Your task to perform on an android device: turn on the 24-hour format for clock Image 0: 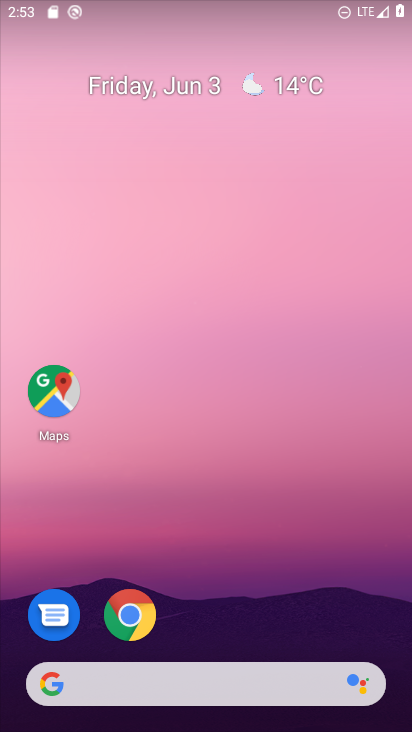
Step 0: drag from (215, 264) to (342, 399)
Your task to perform on an android device: turn on the 24-hour format for clock Image 1: 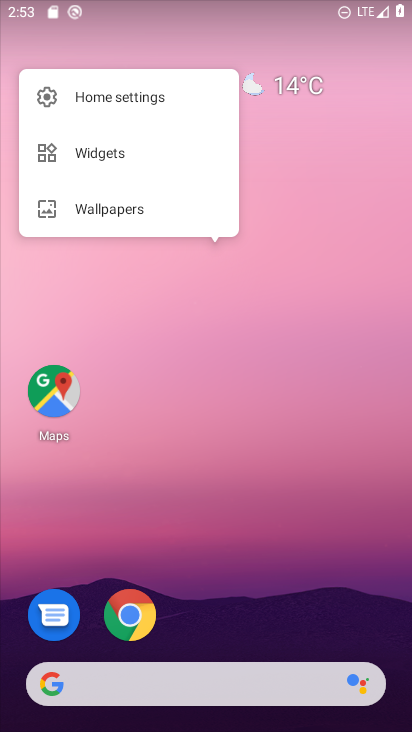
Step 1: drag from (202, 553) to (230, 9)
Your task to perform on an android device: turn on the 24-hour format for clock Image 2: 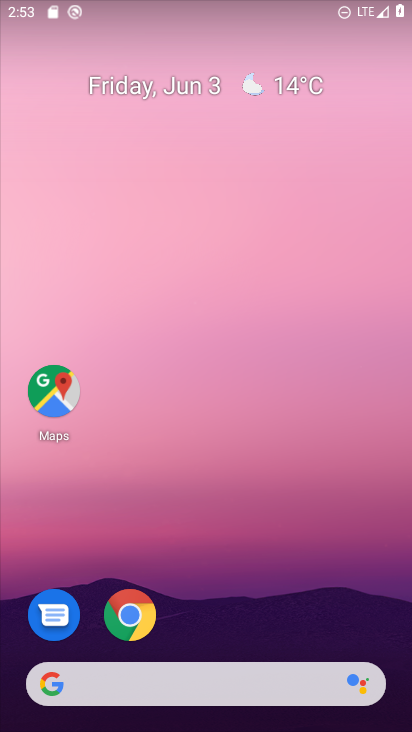
Step 2: drag from (195, 635) to (180, 122)
Your task to perform on an android device: turn on the 24-hour format for clock Image 3: 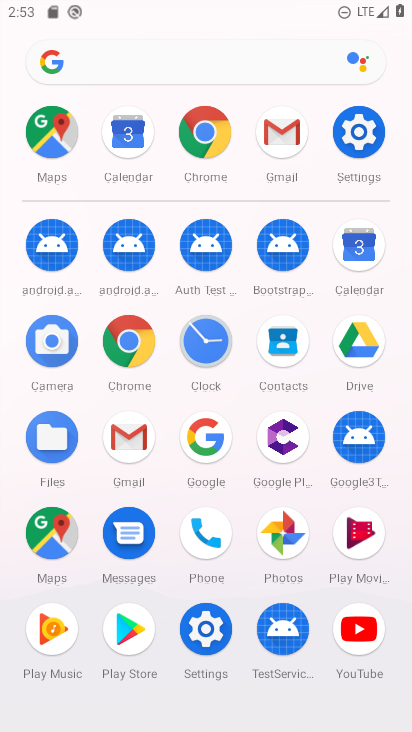
Step 3: click (192, 341)
Your task to perform on an android device: turn on the 24-hour format for clock Image 4: 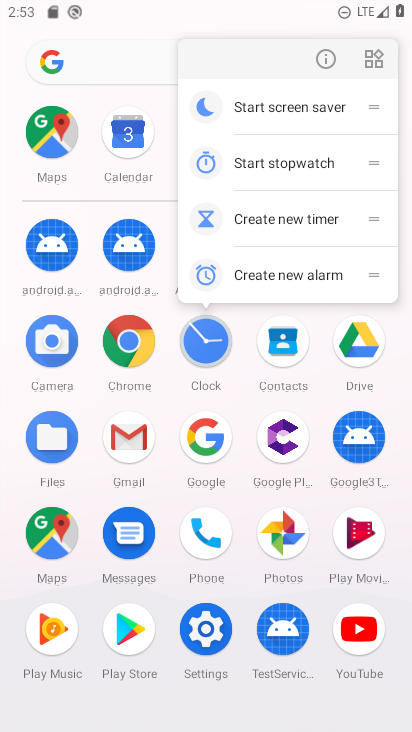
Step 4: click (325, 60)
Your task to perform on an android device: turn on the 24-hour format for clock Image 5: 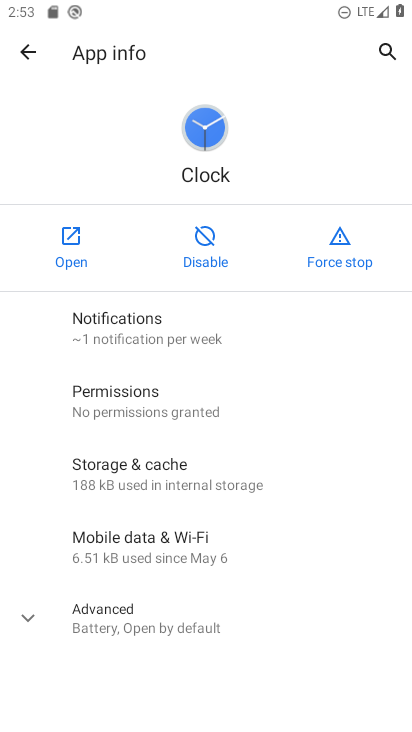
Step 5: drag from (77, 273) to (75, 226)
Your task to perform on an android device: turn on the 24-hour format for clock Image 6: 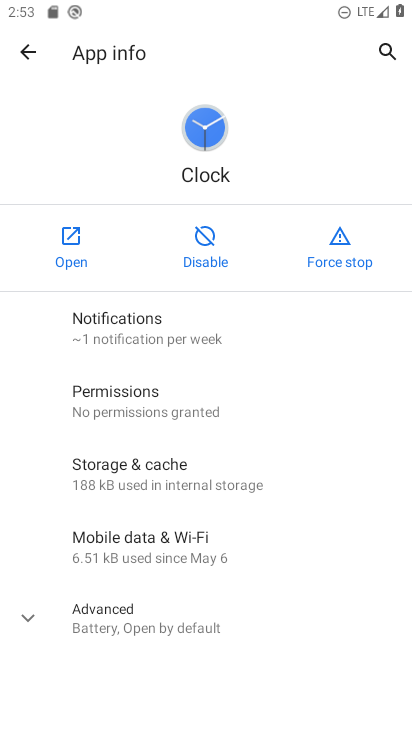
Step 6: drag from (237, 409) to (264, 211)
Your task to perform on an android device: turn on the 24-hour format for clock Image 7: 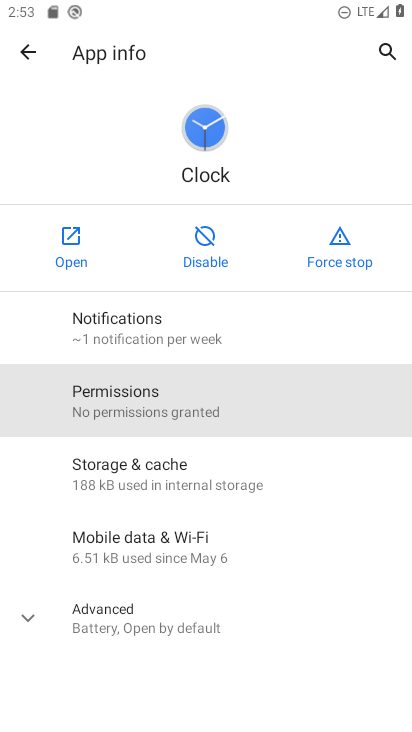
Step 7: drag from (255, 265) to (244, 728)
Your task to perform on an android device: turn on the 24-hour format for clock Image 8: 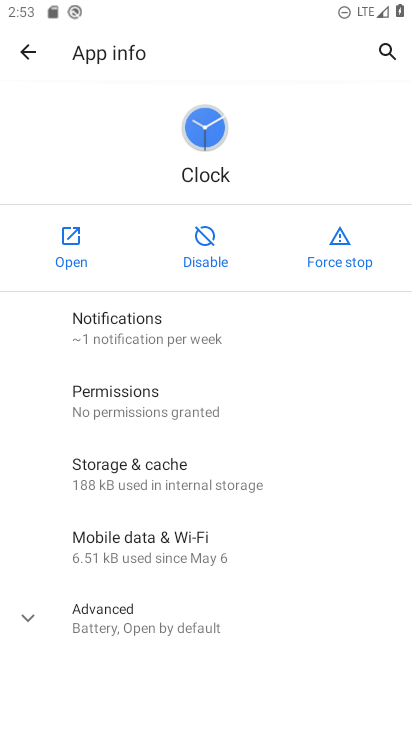
Step 8: click (60, 238)
Your task to perform on an android device: turn on the 24-hour format for clock Image 9: 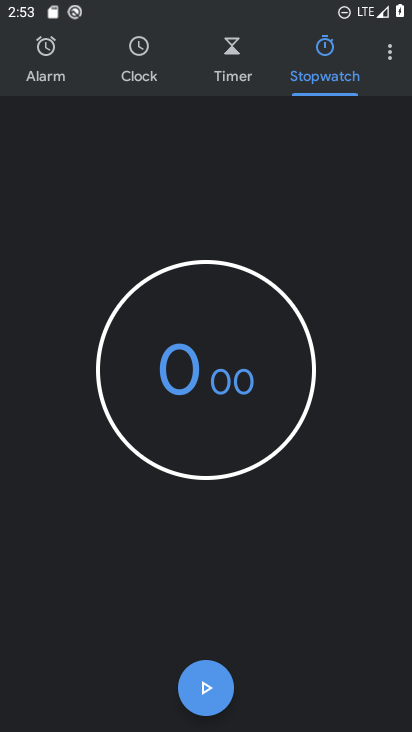
Step 9: click (391, 64)
Your task to perform on an android device: turn on the 24-hour format for clock Image 10: 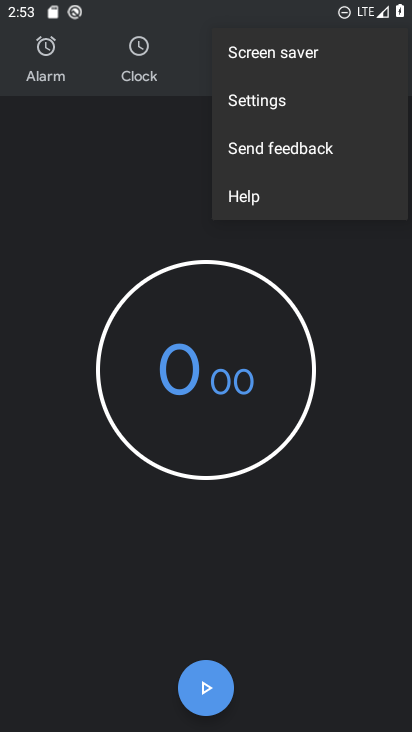
Step 10: click (270, 101)
Your task to perform on an android device: turn on the 24-hour format for clock Image 11: 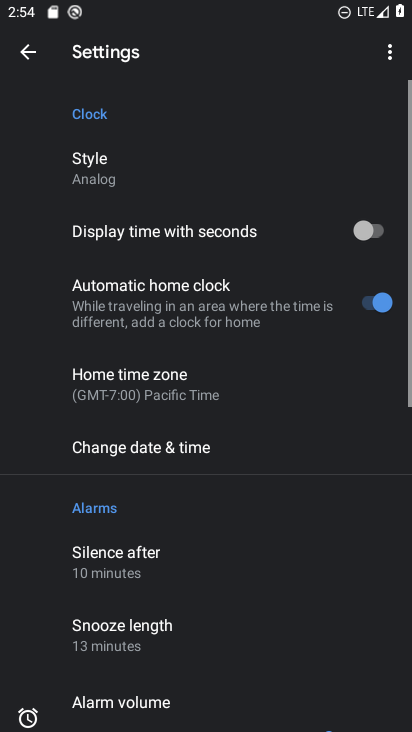
Step 11: drag from (163, 542) to (197, 214)
Your task to perform on an android device: turn on the 24-hour format for clock Image 12: 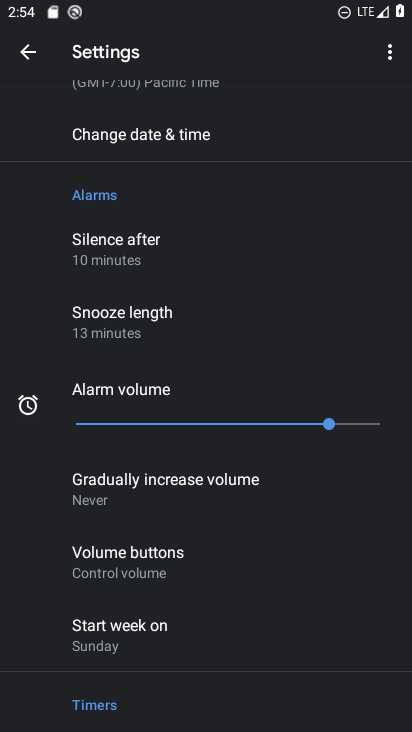
Step 12: click (169, 132)
Your task to perform on an android device: turn on the 24-hour format for clock Image 13: 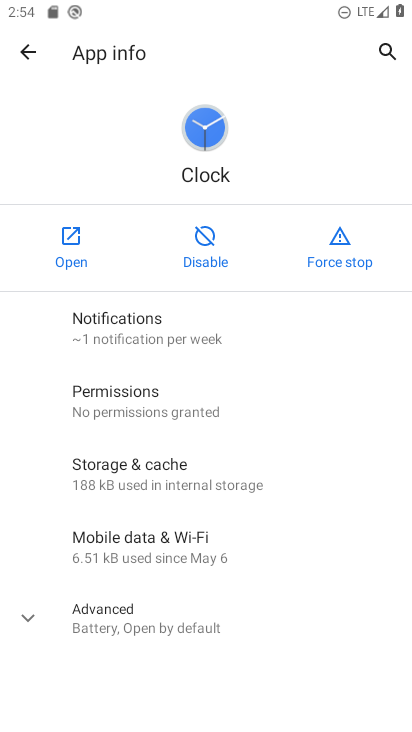
Step 13: click (62, 251)
Your task to perform on an android device: turn on the 24-hour format for clock Image 14: 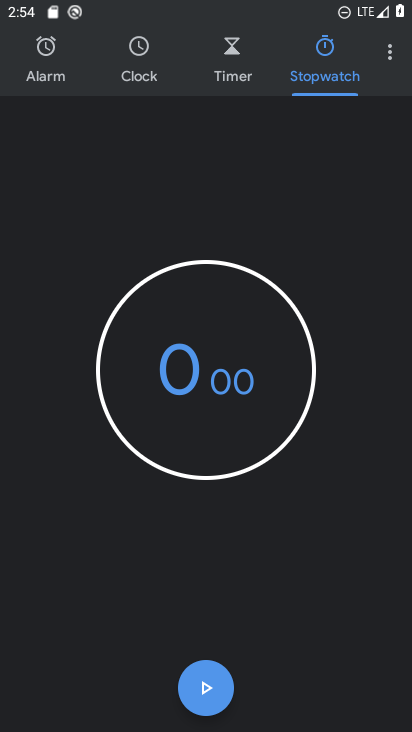
Step 14: click (384, 45)
Your task to perform on an android device: turn on the 24-hour format for clock Image 15: 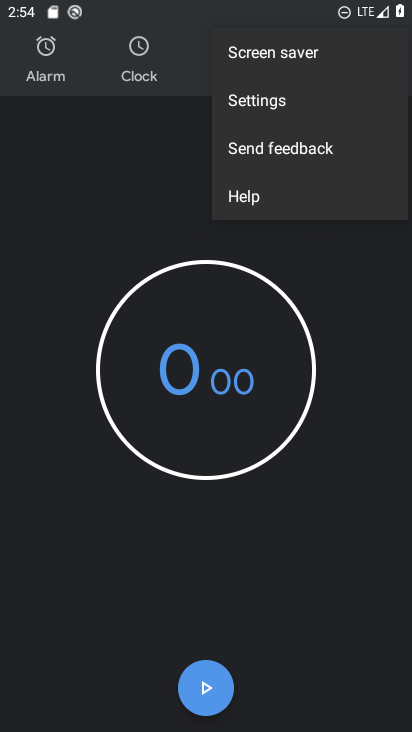
Step 15: click (292, 96)
Your task to perform on an android device: turn on the 24-hour format for clock Image 16: 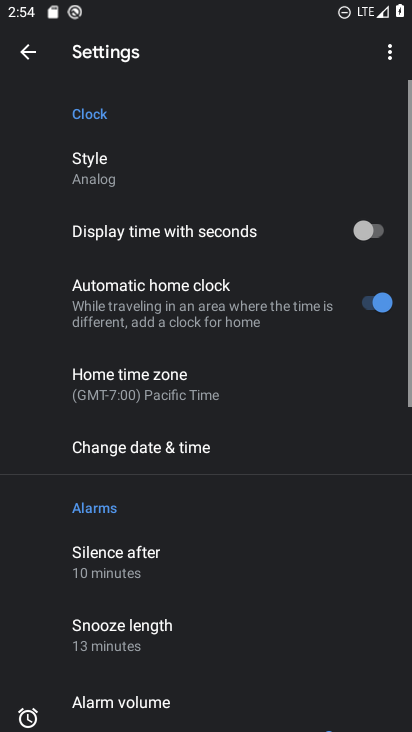
Step 16: click (174, 441)
Your task to perform on an android device: turn on the 24-hour format for clock Image 17: 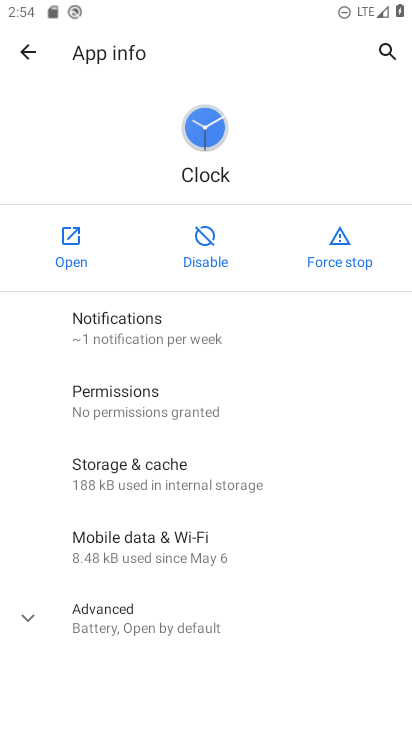
Step 17: task complete